Your task to perform on an android device: open app "Google Duo" (install if not already installed) Image 0: 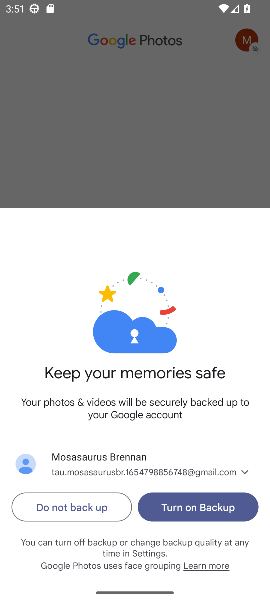
Step 0: press home button
Your task to perform on an android device: open app "Google Duo" (install if not already installed) Image 1: 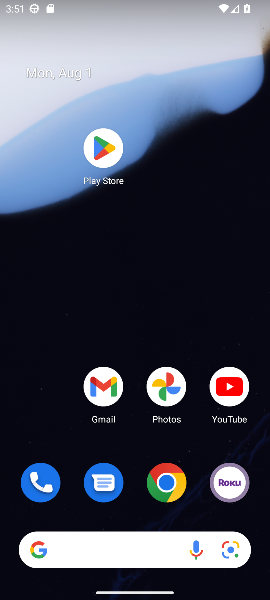
Step 1: click (107, 147)
Your task to perform on an android device: open app "Google Duo" (install if not already installed) Image 2: 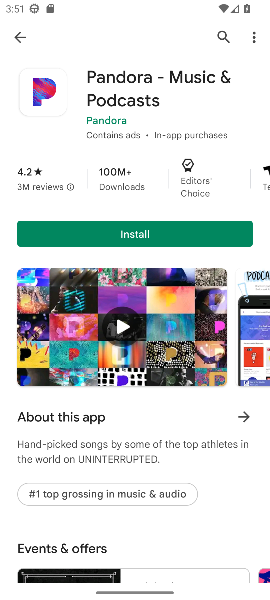
Step 2: click (217, 34)
Your task to perform on an android device: open app "Google Duo" (install if not already installed) Image 3: 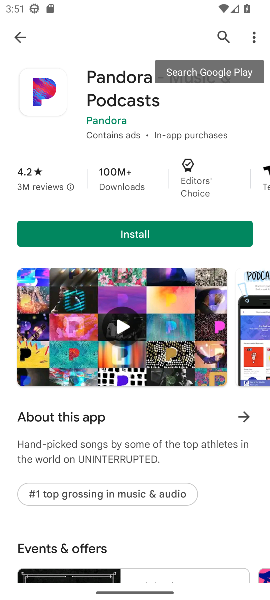
Step 3: click (222, 34)
Your task to perform on an android device: open app "Google Duo" (install if not already installed) Image 4: 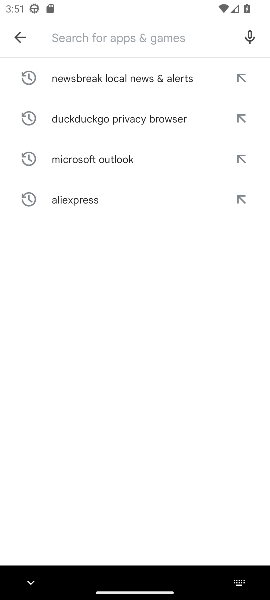
Step 4: type "Google Duo"
Your task to perform on an android device: open app "Google Duo" (install if not already installed) Image 5: 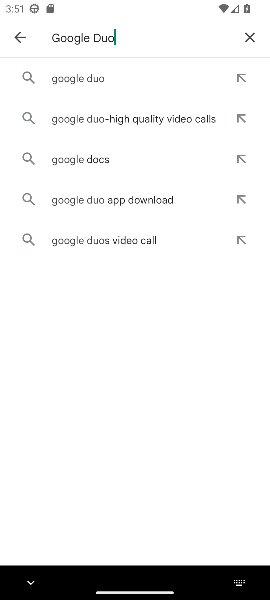
Step 5: click (86, 73)
Your task to perform on an android device: open app "Google Duo" (install if not already installed) Image 6: 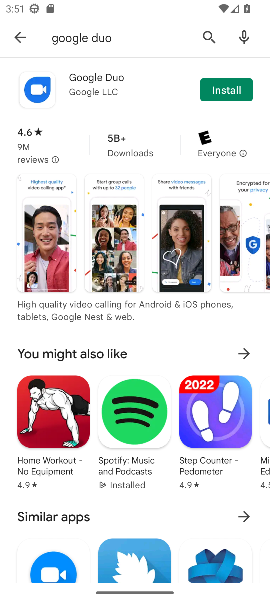
Step 6: click (218, 86)
Your task to perform on an android device: open app "Google Duo" (install if not already installed) Image 7: 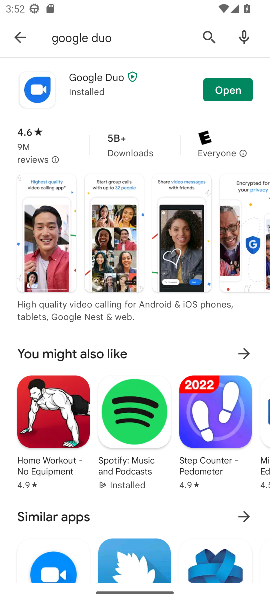
Step 7: click (222, 87)
Your task to perform on an android device: open app "Google Duo" (install if not already installed) Image 8: 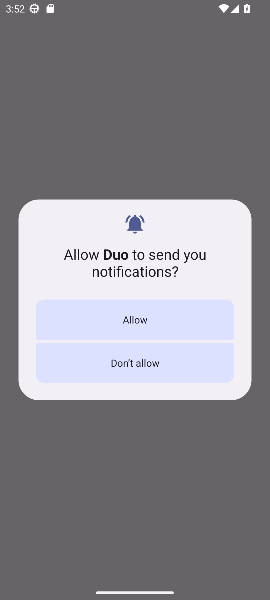
Step 8: click (188, 360)
Your task to perform on an android device: open app "Google Duo" (install if not already installed) Image 9: 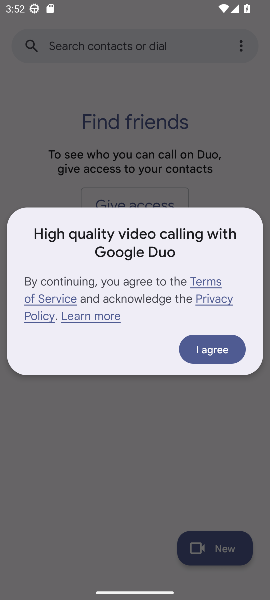
Step 9: task complete